Your task to perform on an android device: change the upload size in google photos Image 0: 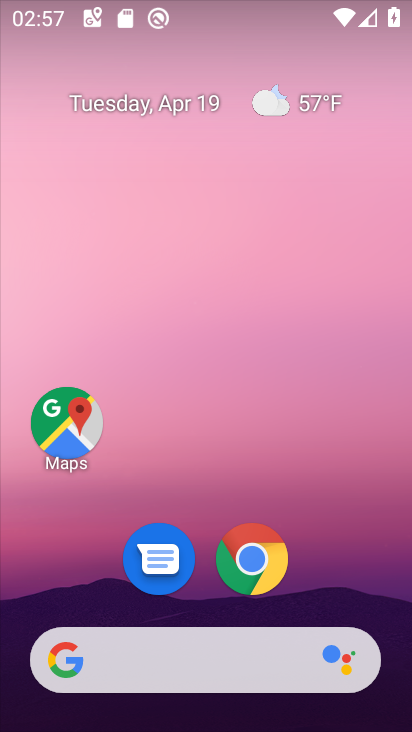
Step 0: drag from (208, 602) to (196, 313)
Your task to perform on an android device: change the upload size in google photos Image 1: 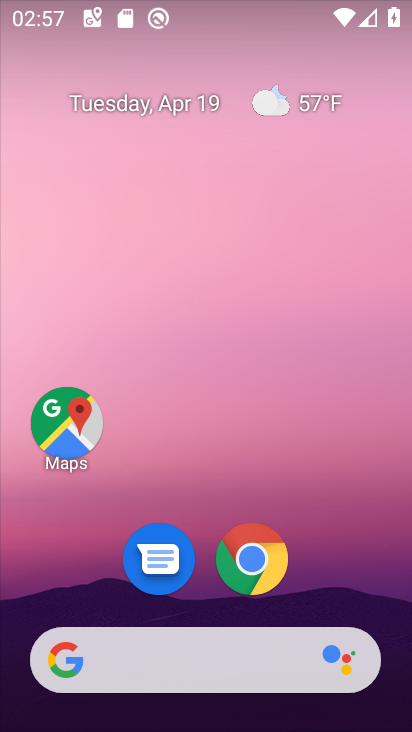
Step 1: drag from (205, 489) to (204, 1)
Your task to perform on an android device: change the upload size in google photos Image 2: 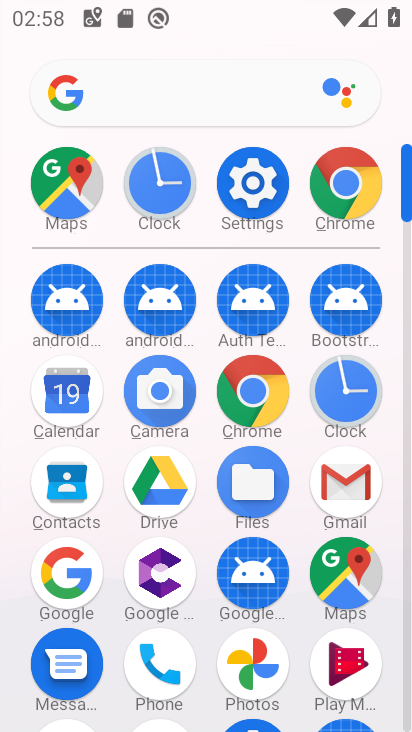
Step 2: click (253, 652)
Your task to perform on an android device: change the upload size in google photos Image 3: 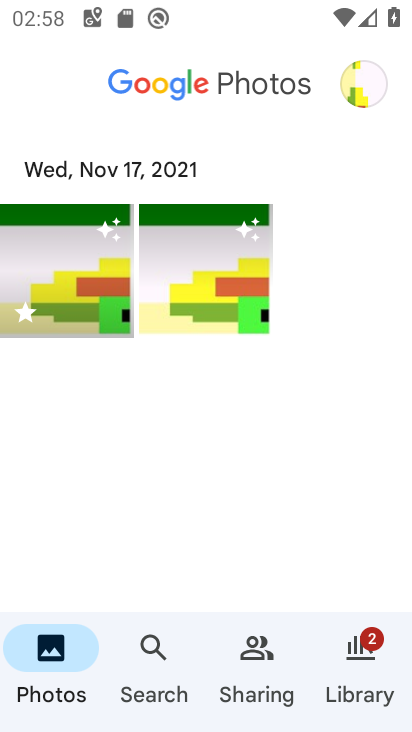
Step 3: click (364, 79)
Your task to perform on an android device: change the upload size in google photos Image 4: 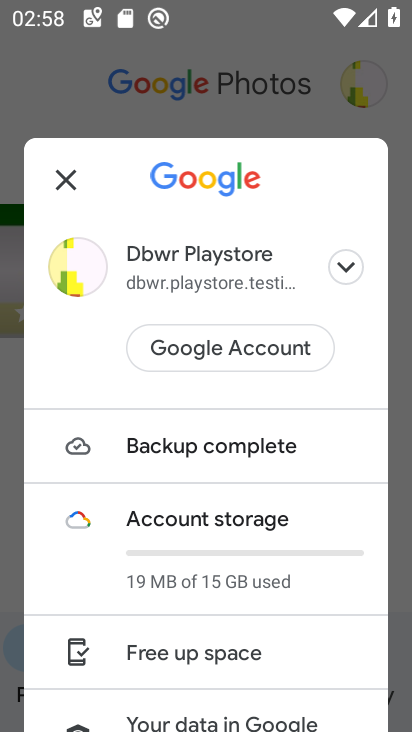
Step 4: click (148, 451)
Your task to perform on an android device: change the upload size in google photos Image 5: 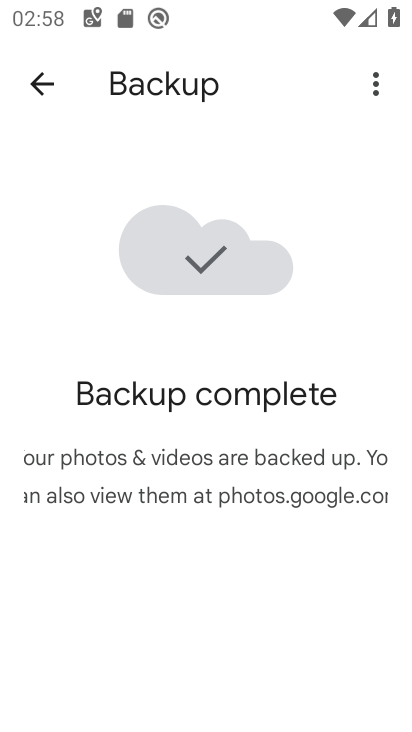
Step 5: click (378, 84)
Your task to perform on an android device: change the upload size in google photos Image 6: 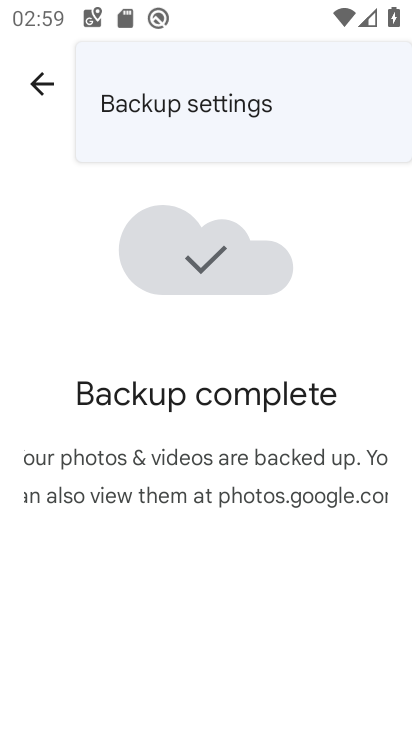
Step 6: click (221, 110)
Your task to perform on an android device: change the upload size in google photos Image 7: 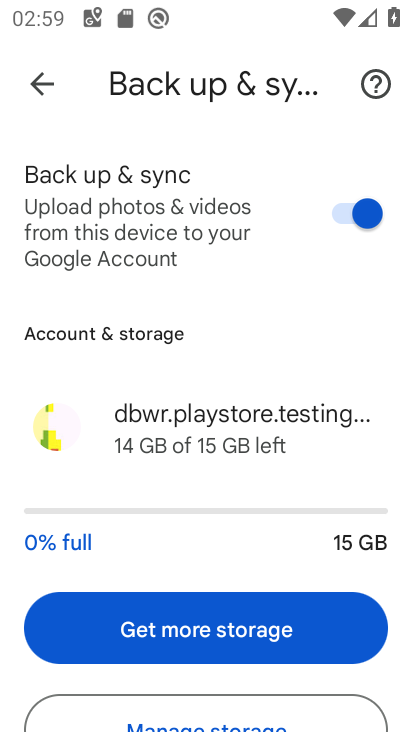
Step 7: drag from (190, 523) to (220, 112)
Your task to perform on an android device: change the upload size in google photos Image 8: 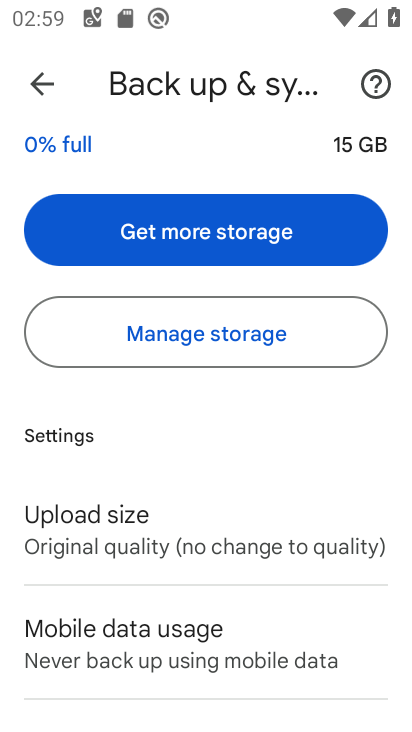
Step 8: click (141, 538)
Your task to perform on an android device: change the upload size in google photos Image 9: 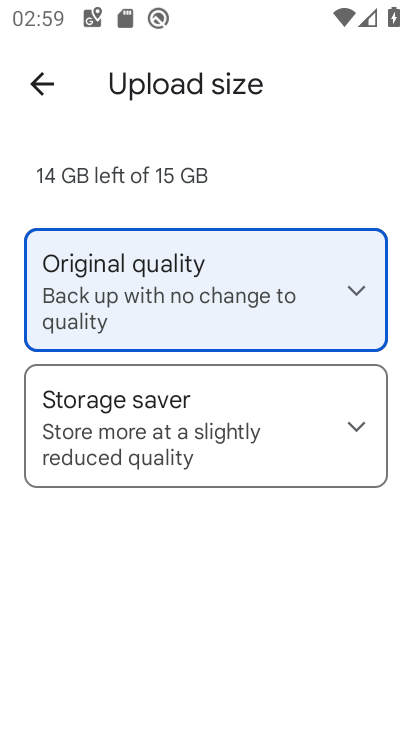
Step 9: click (153, 421)
Your task to perform on an android device: change the upload size in google photos Image 10: 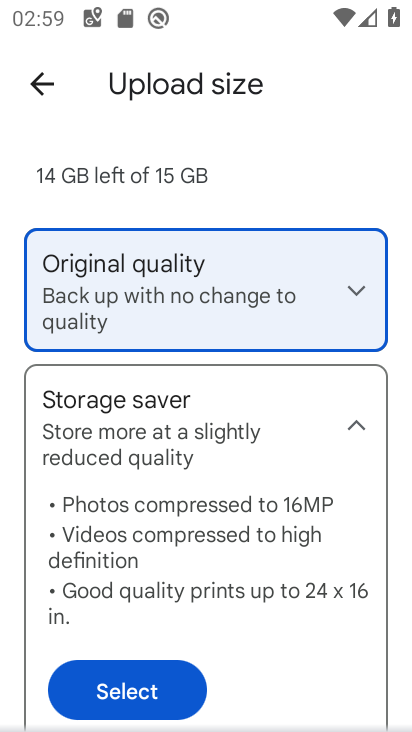
Step 10: click (129, 684)
Your task to perform on an android device: change the upload size in google photos Image 11: 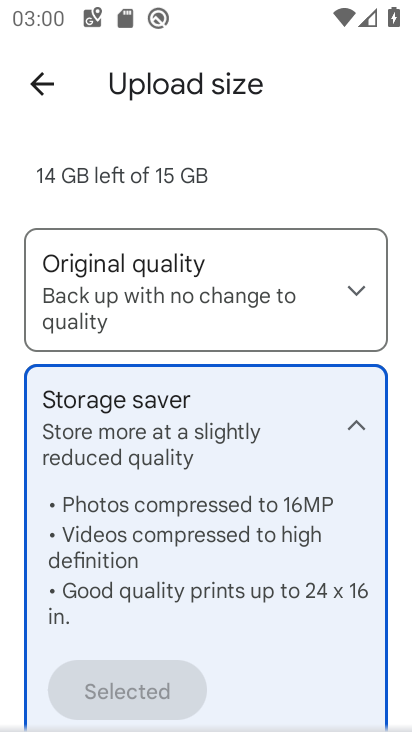
Step 11: task complete